Your task to perform on an android device: change the upload size in google photos Image 0: 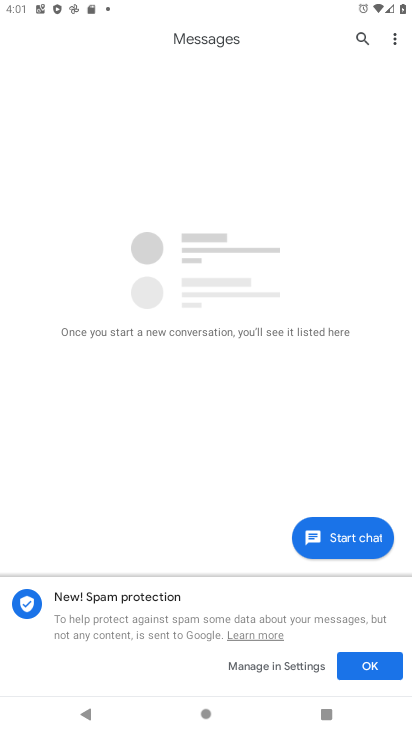
Step 0: press home button
Your task to perform on an android device: change the upload size in google photos Image 1: 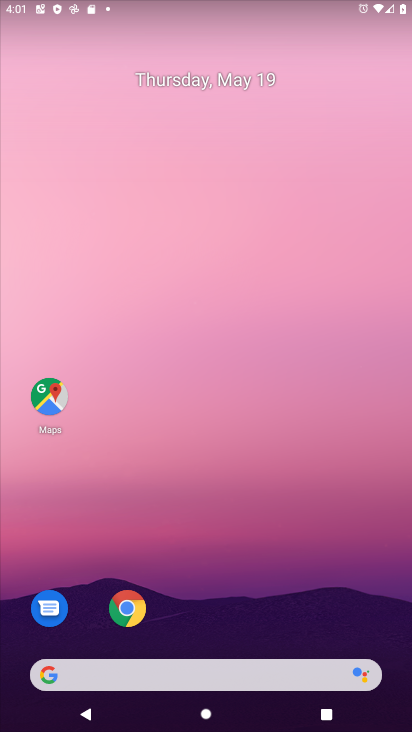
Step 1: drag from (229, 622) to (241, 186)
Your task to perform on an android device: change the upload size in google photos Image 2: 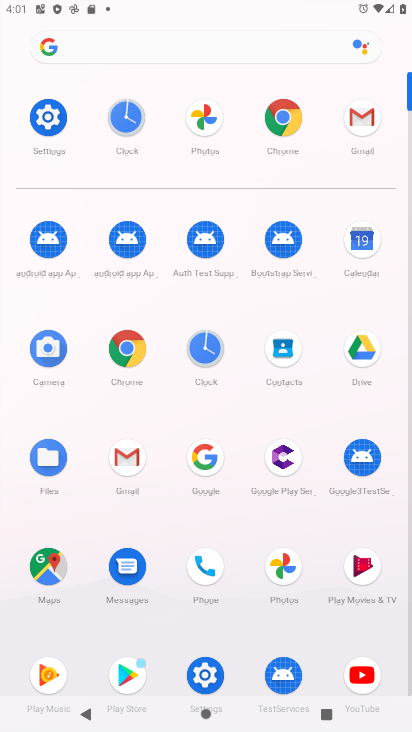
Step 2: click (299, 586)
Your task to perform on an android device: change the upload size in google photos Image 3: 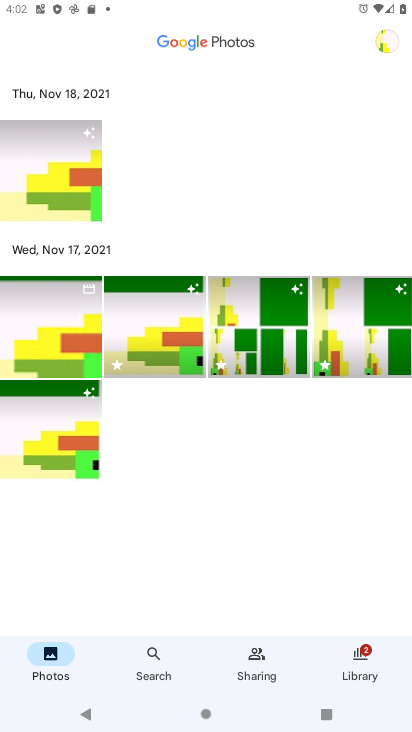
Step 3: click (393, 47)
Your task to perform on an android device: change the upload size in google photos Image 4: 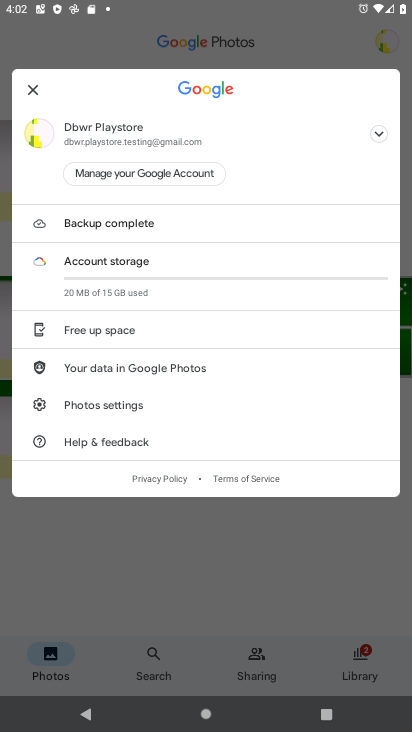
Step 4: click (138, 207)
Your task to perform on an android device: change the upload size in google photos Image 5: 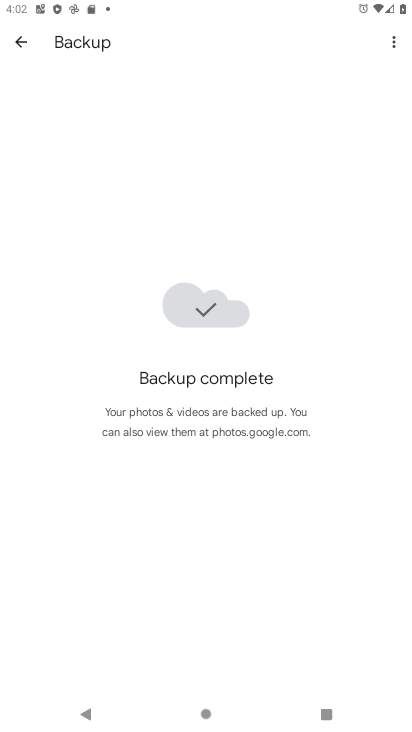
Step 5: task complete